Your task to perform on an android device: clear history in the chrome app Image 0: 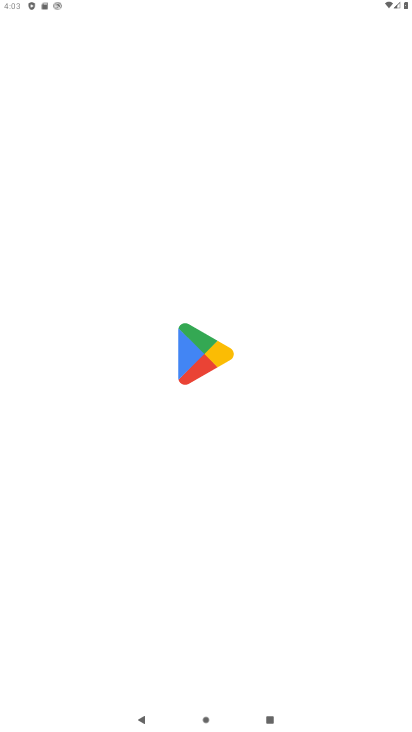
Step 0: press home button
Your task to perform on an android device: clear history in the chrome app Image 1: 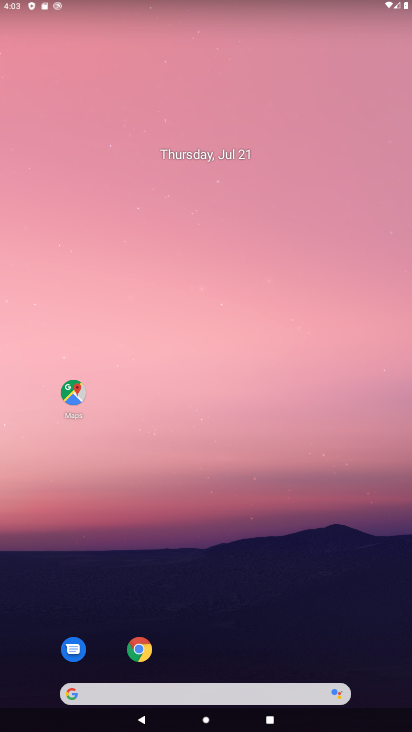
Step 1: click (132, 651)
Your task to perform on an android device: clear history in the chrome app Image 2: 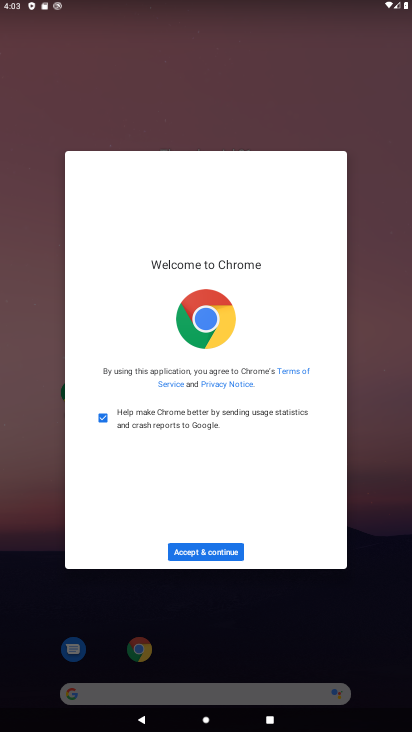
Step 2: click (200, 540)
Your task to perform on an android device: clear history in the chrome app Image 3: 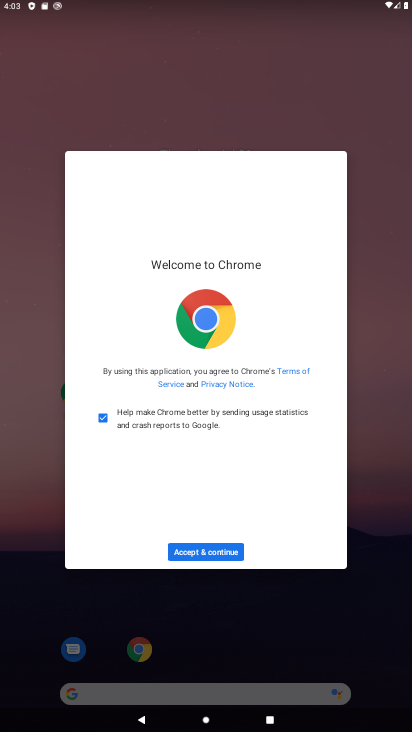
Step 3: click (192, 553)
Your task to perform on an android device: clear history in the chrome app Image 4: 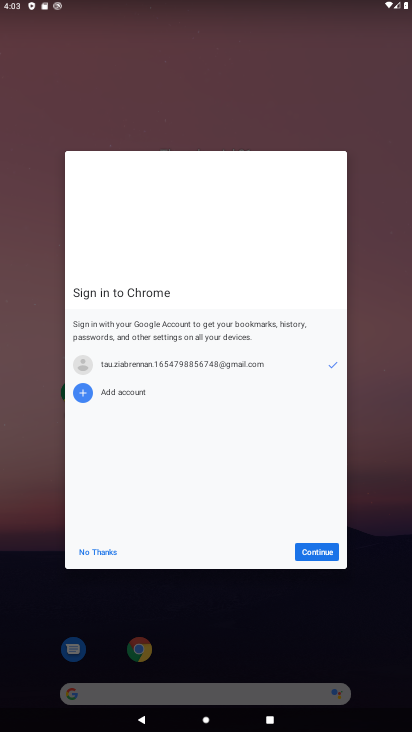
Step 4: click (300, 552)
Your task to perform on an android device: clear history in the chrome app Image 5: 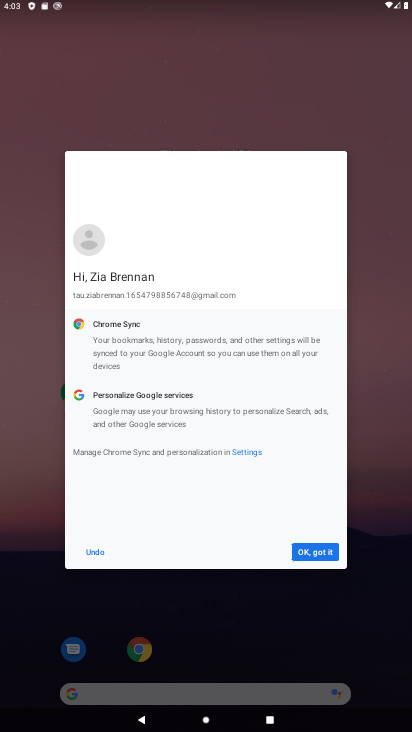
Step 5: click (300, 552)
Your task to perform on an android device: clear history in the chrome app Image 6: 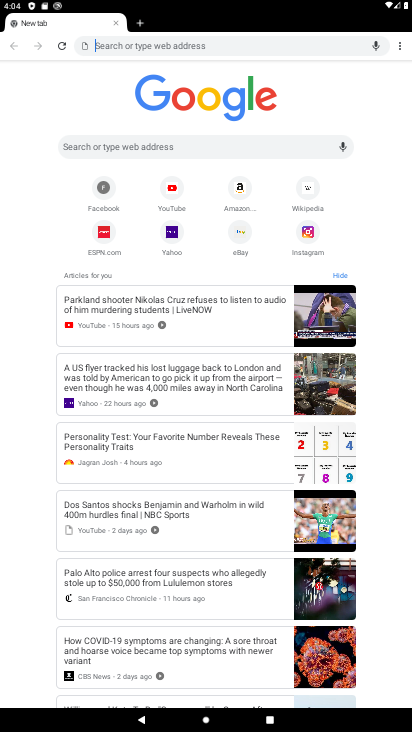
Step 6: click (399, 45)
Your task to perform on an android device: clear history in the chrome app Image 7: 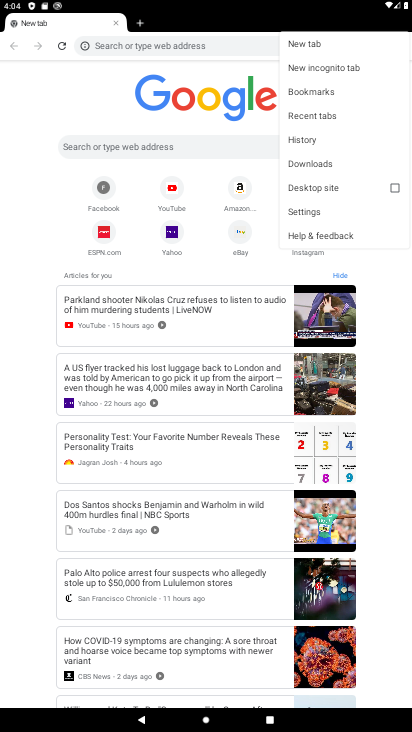
Step 7: click (291, 141)
Your task to perform on an android device: clear history in the chrome app Image 8: 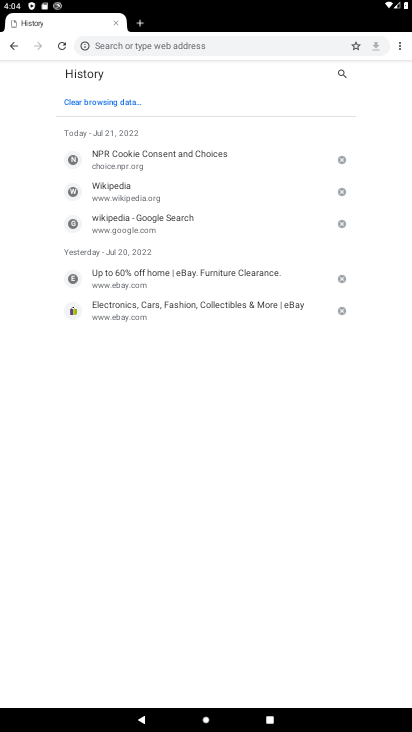
Step 8: click (124, 103)
Your task to perform on an android device: clear history in the chrome app Image 9: 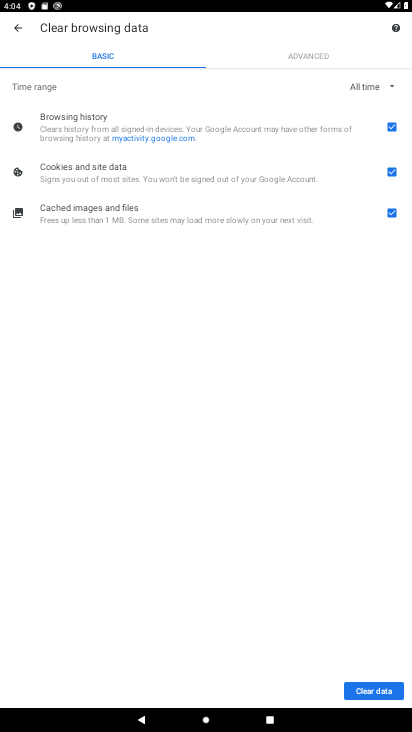
Step 9: click (359, 692)
Your task to perform on an android device: clear history in the chrome app Image 10: 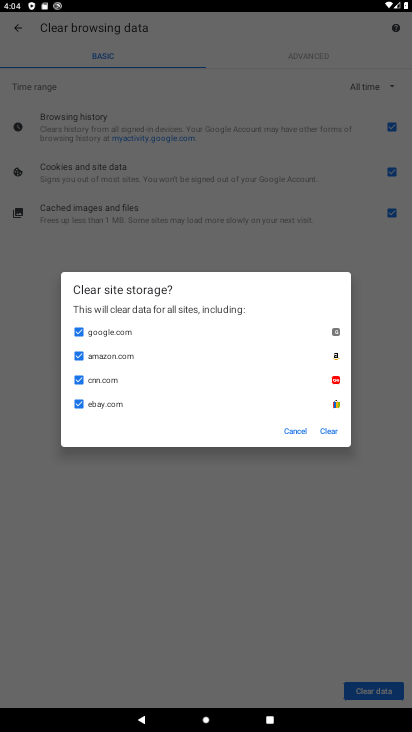
Step 10: click (324, 429)
Your task to perform on an android device: clear history in the chrome app Image 11: 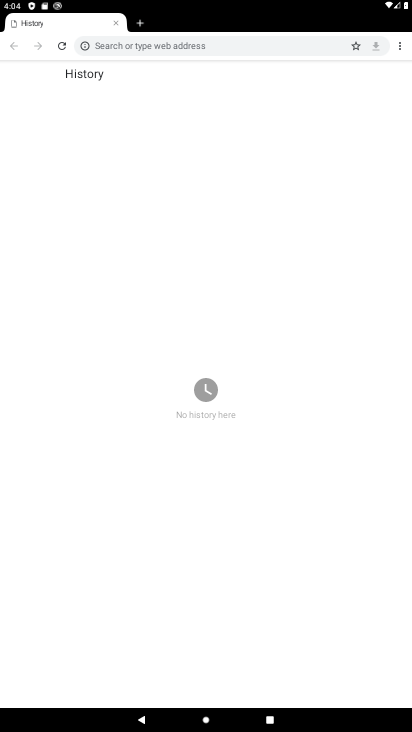
Step 11: task complete